Your task to perform on an android device: turn on notifications settings in the gmail app Image 0: 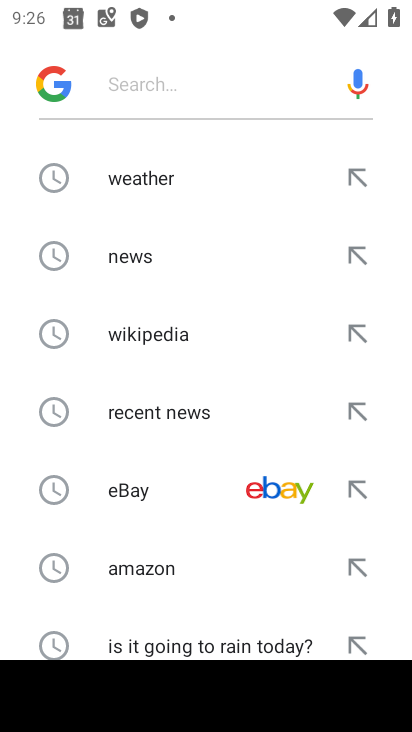
Step 0: press home button
Your task to perform on an android device: turn on notifications settings in the gmail app Image 1: 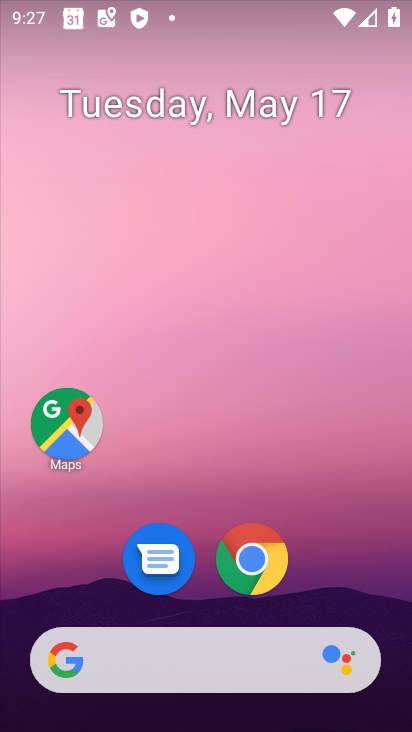
Step 1: drag from (194, 715) to (181, 246)
Your task to perform on an android device: turn on notifications settings in the gmail app Image 2: 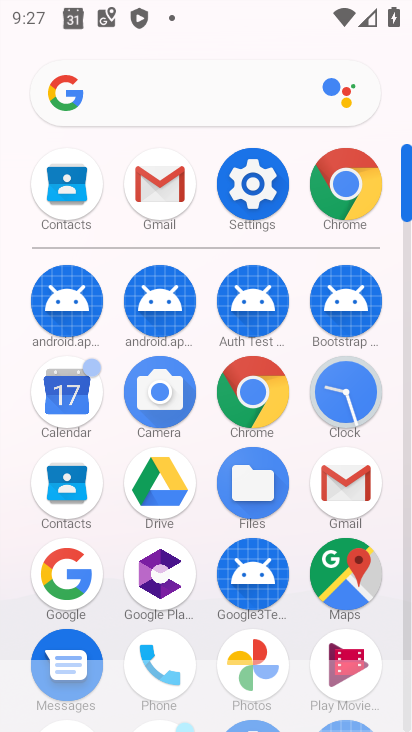
Step 2: click (171, 201)
Your task to perform on an android device: turn on notifications settings in the gmail app Image 3: 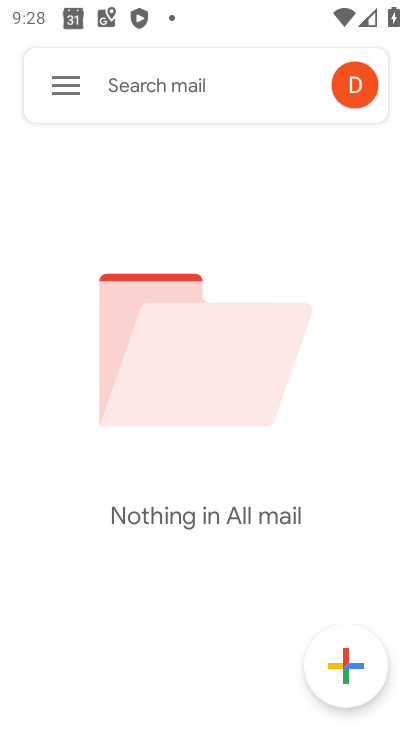
Step 3: press back button
Your task to perform on an android device: turn on notifications settings in the gmail app Image 4: 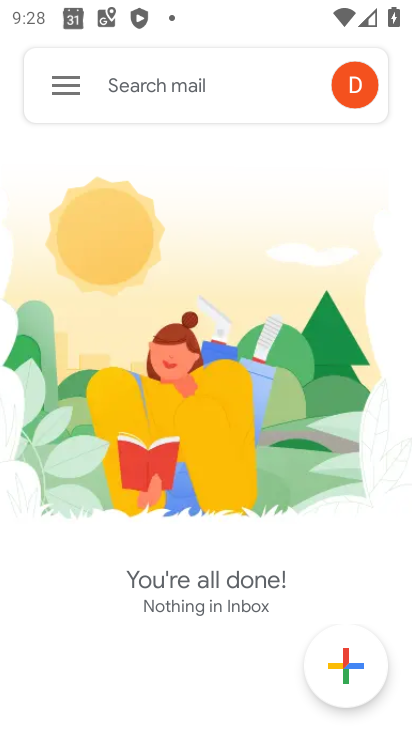
Step 4: press home button
Your task to perform on an android device: turn on notifications settings in the gmail app Image 5: 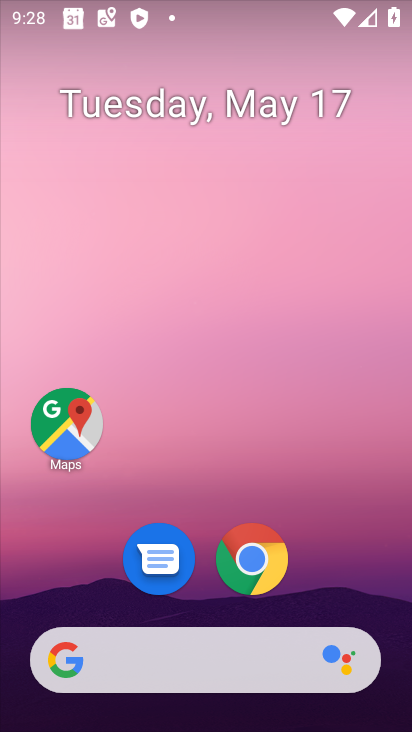
Step 5: drag from (278, 706) to (231, 17)
Your task to perform on an android device: turn on notifications settings in the gmail app Image 6: 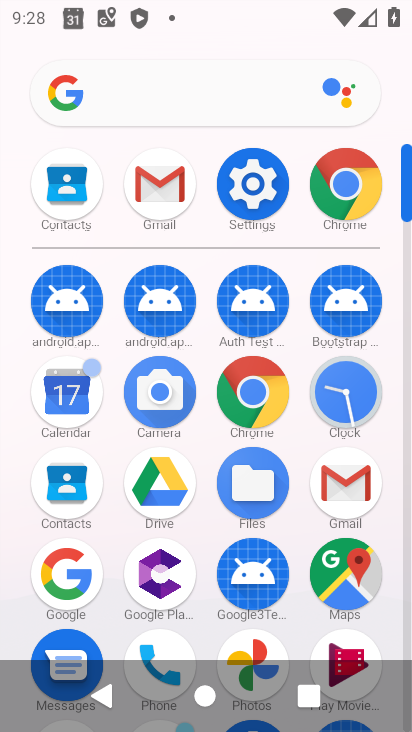
Step 6: click (130, 183)
Your task to perform on an android device: turn on notifications settings in the gmail app Image 7: 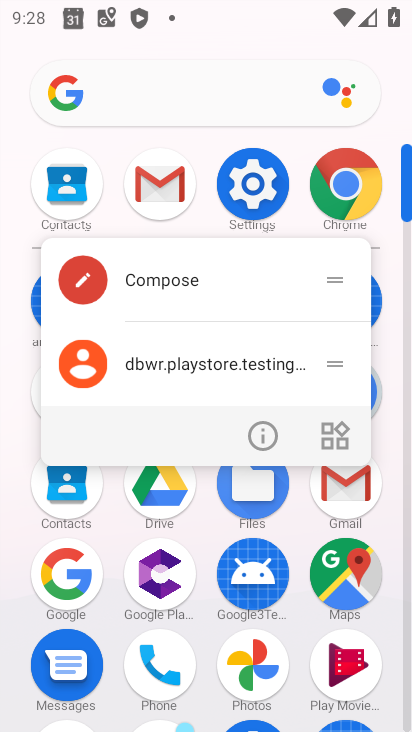
Step 7: click (257, 429)
Your task to perform on an android device: turn on notifications settings in the gmail app Image 8: 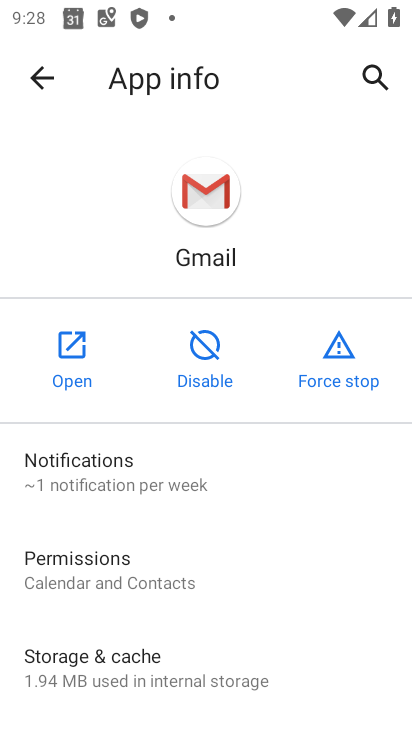
Step 8: click (167, 472)
Your task to perform on an android device: turn on notifications settings in the gmail app Image 9: 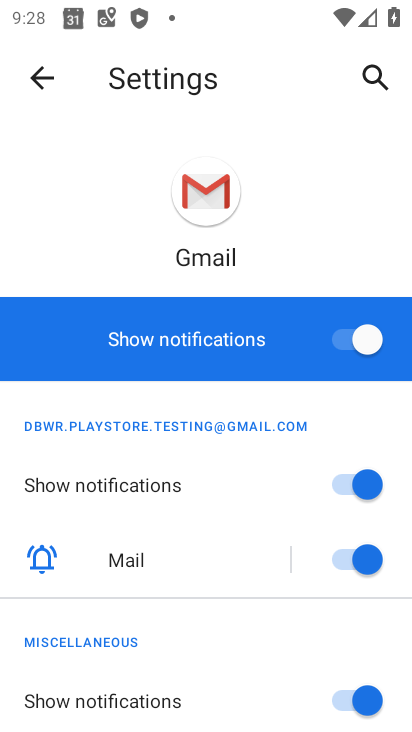
Step 9: task complete